Your task to perform on an android device: Open Youtube and go to the subscriptions tab Image 0: 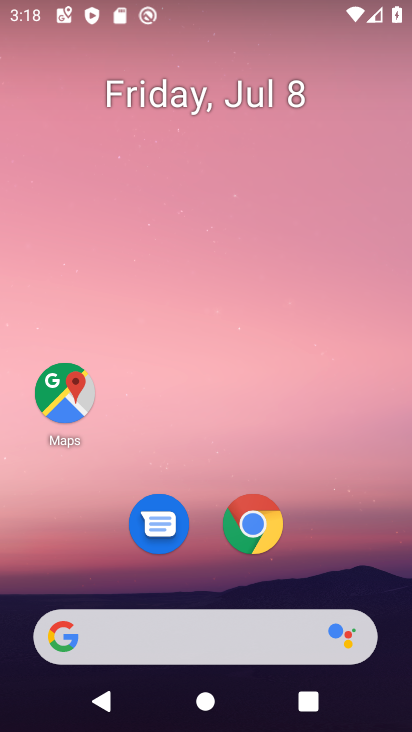
Step 0: drag from (348, 527) to (220, 59)
Your task to perform on an android device: Open Youtube and go to the subscriptions tab Image 1: 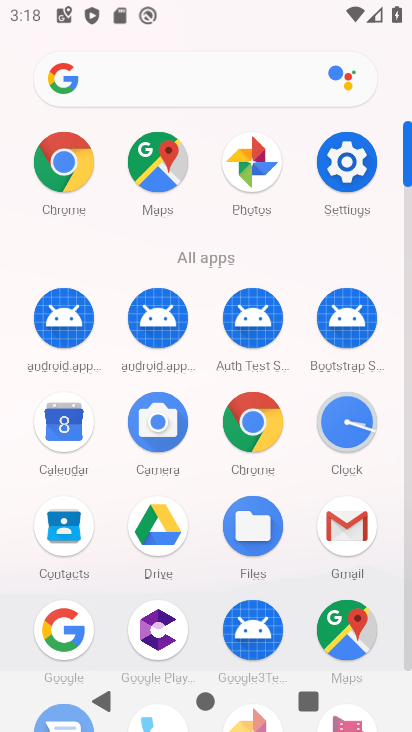
Step 1: drag from (205, 557) to (196, 145)
Your task to perform on an android device: Open Youtube and go to the subscriptions tab Image 2: 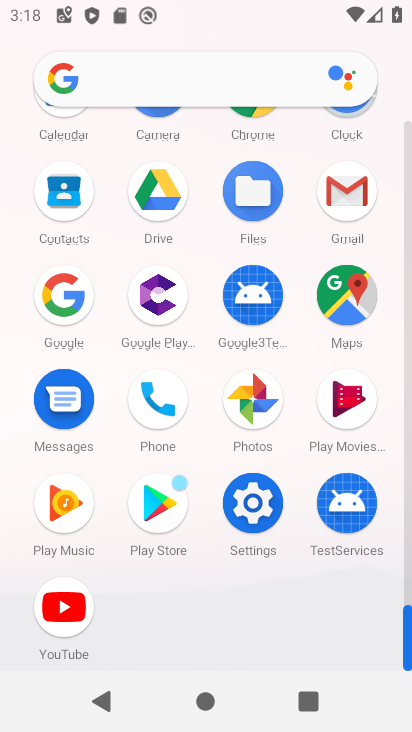
Step 2: click (71, 620)
Your task to perform on an android device: Open Youtube and go to the subscriptions tab Image 3: 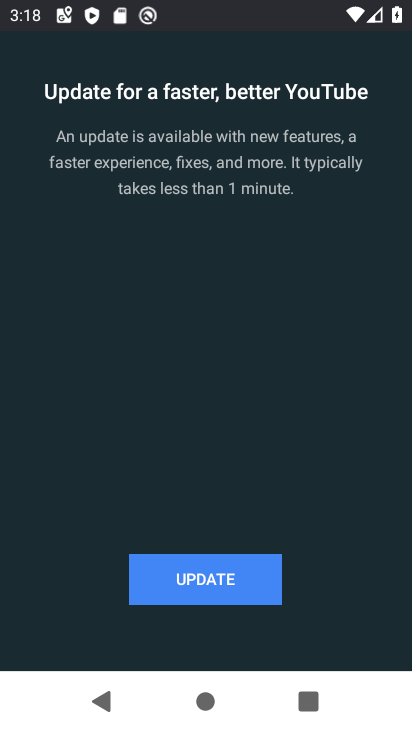
Step 3: click (253, 590)
Your task to perform on an android device: Open Youtube and go to the subscriptions tab Image 4: 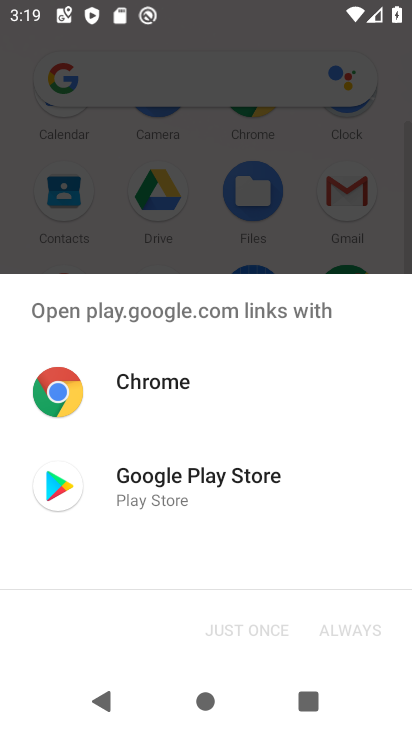
Step 4: click (155, 493)
Your task to perform on an android device: Open Youtube and go to the subscriptions tab Image 5: 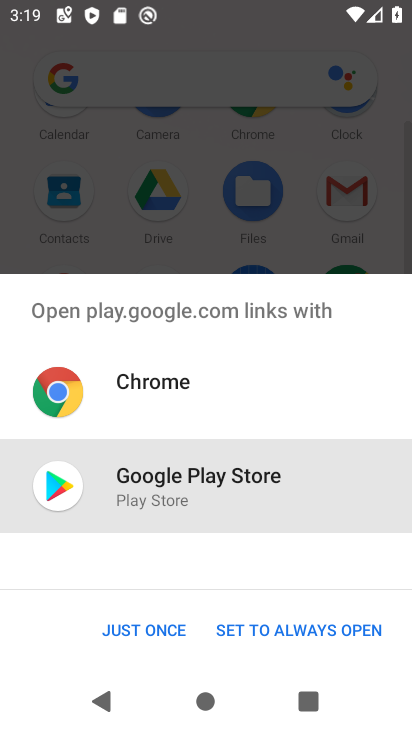
Step 5: click (170, 629)
Your task to perform on an android device: Open Youtube and go to the subscriptions tab Image 6: 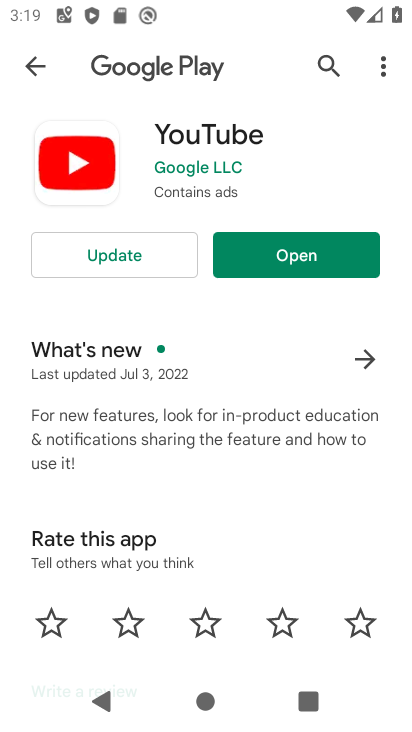
Step 6: click (138, 255)
Your task to perform on an android device: Open Youtube and go to the subscriptions tab Image 7: 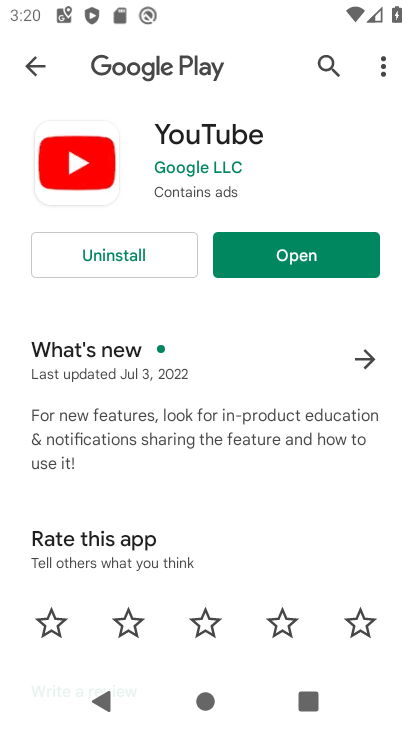
Step 7: click (283, 254)
Your task to perform on an android device: Open Youtube and go to the subscriptions tab Image 8: 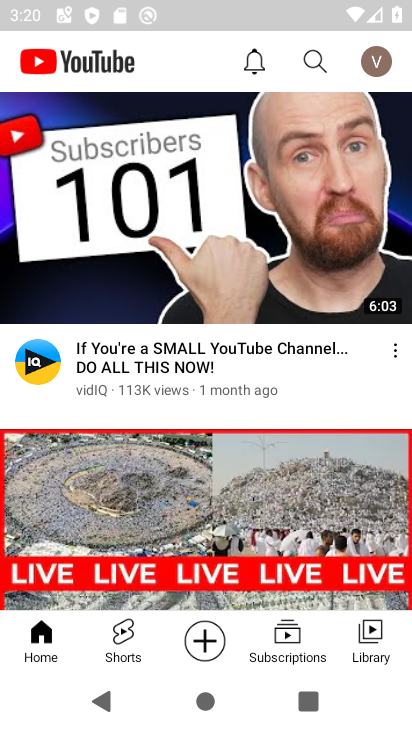
Step 8: click (291, 636)
Your task to perform on an android device: Open Youtube and go to the subscriptions tab Image 9: 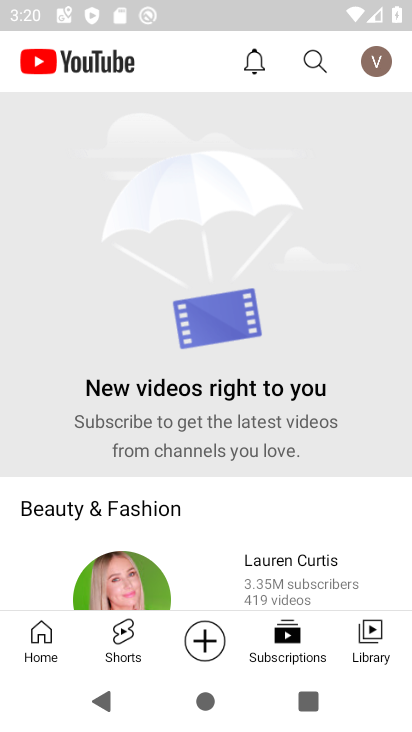
Step 9: task complete